Your task to perform on an android device: change notifications settings Image 0: 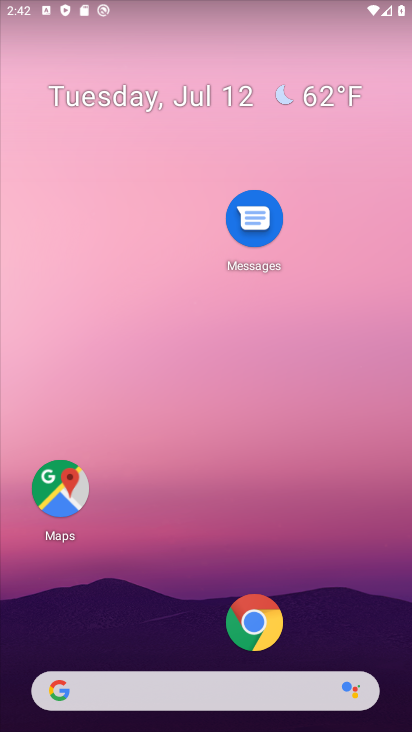
Step 0: press home button
Your task to perform on an android device: change notifications settings Image 1: 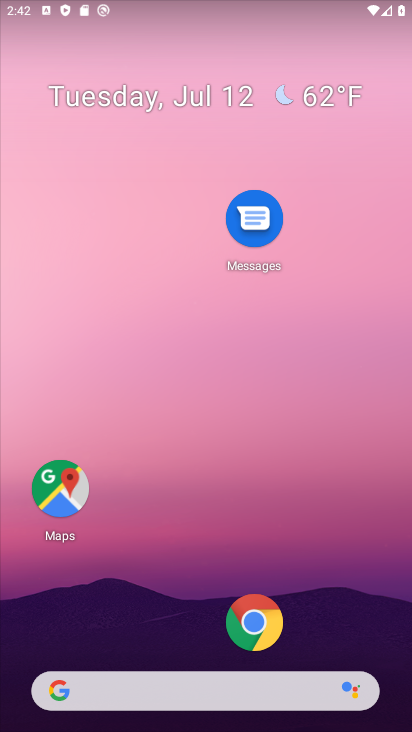
Step 1: drag from (184, 658) to (191, 90)
Your task to perform on an android device: change notifications settings Image 2: 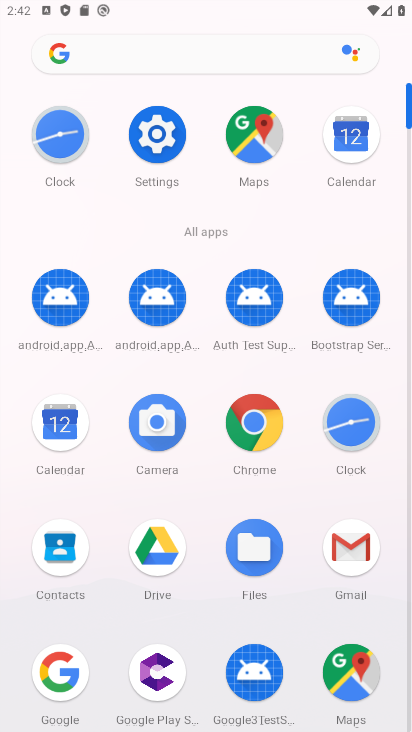
Step 2: click (151, 131)
Your task to perform on an android device: change notifications settings Image 3: 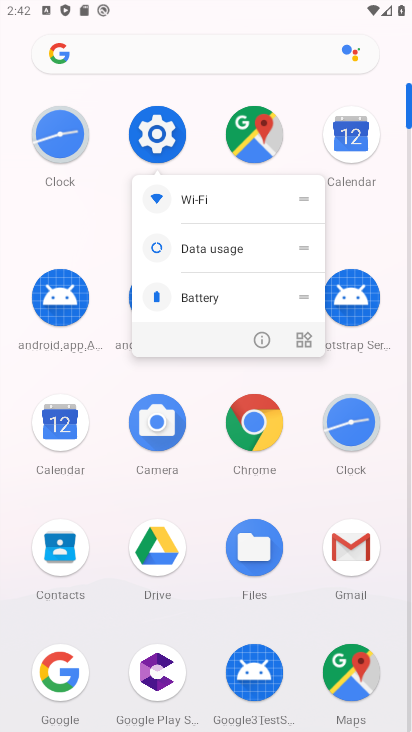
Step 3: click (154, 127)
Your task to perform on an android device: change notifications settings Image 4: 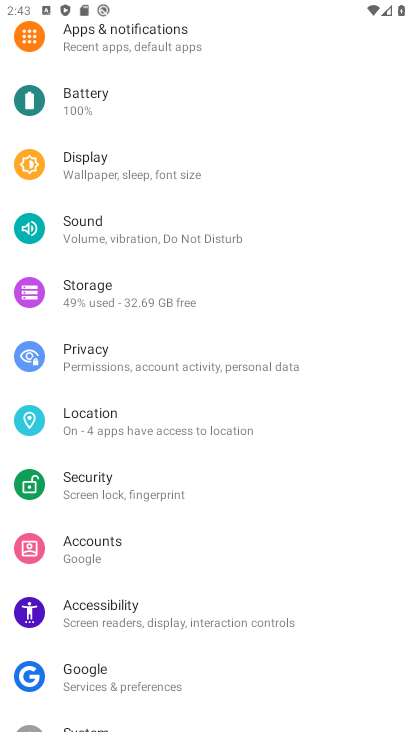
Step 4: click (128, 35)
Your task to perform on an android device: change notifications settings Image 5: 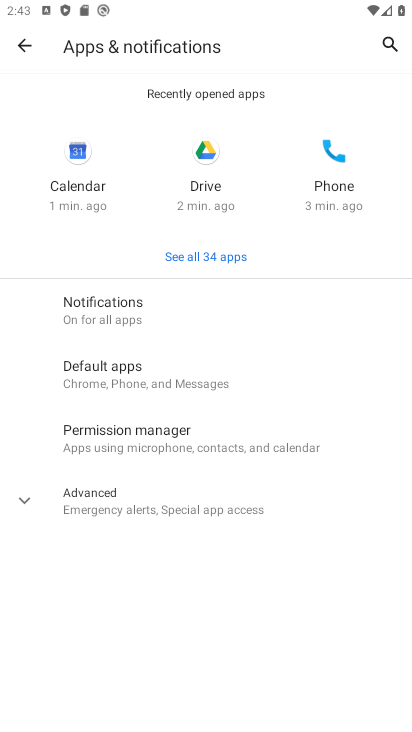
Step 5: click (155, 306)
Your task to perform on an android device: change notifications settings Image 6: 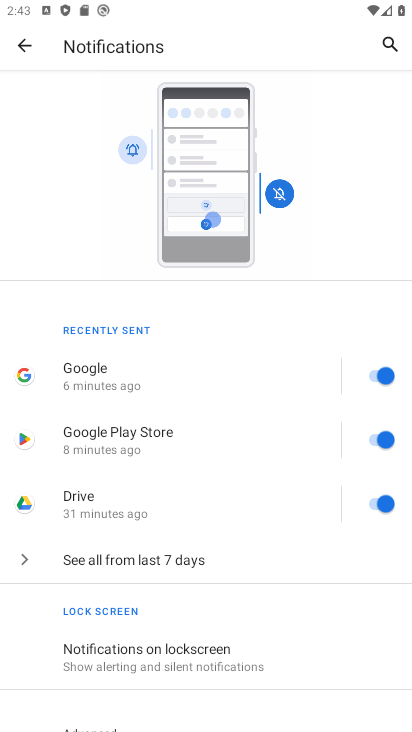
Step 6: drag from (183, 608) to (258, 146)
Your task to perform on an android device: change notifications settings Image 7: 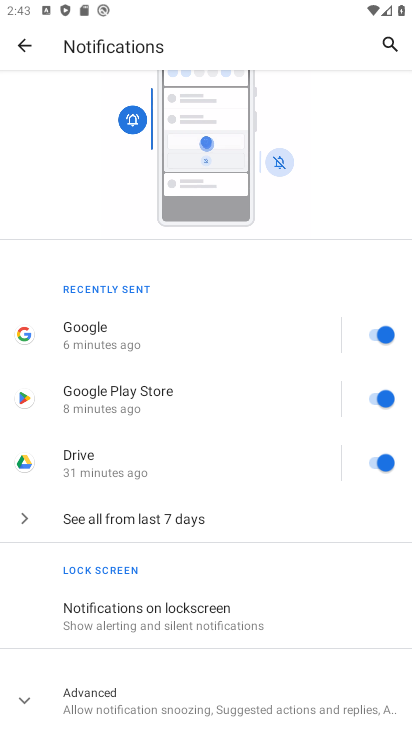
Step 7: click (23, 695)
Your task to perform on an android device: change notifications settings Image 8: 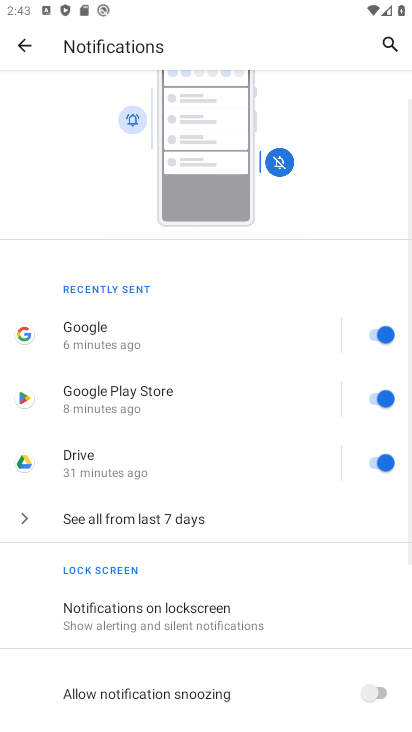
Step 8: task complete